Your task to perform on an android device: Do I have any events today? Image 0: 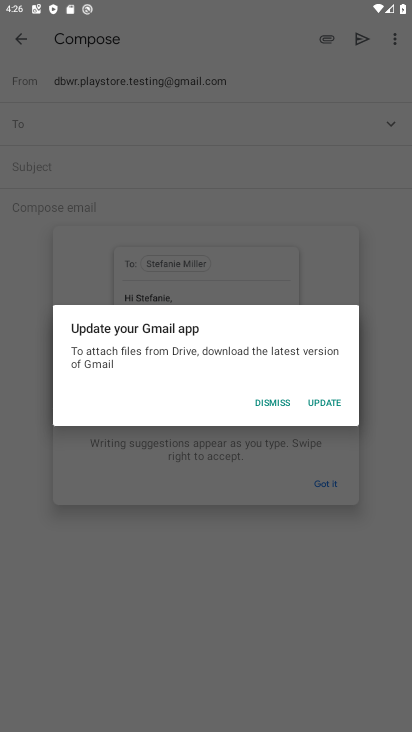
Step 0: press home button
Your task to perform on an android device: Do I have any events today? Image 1: 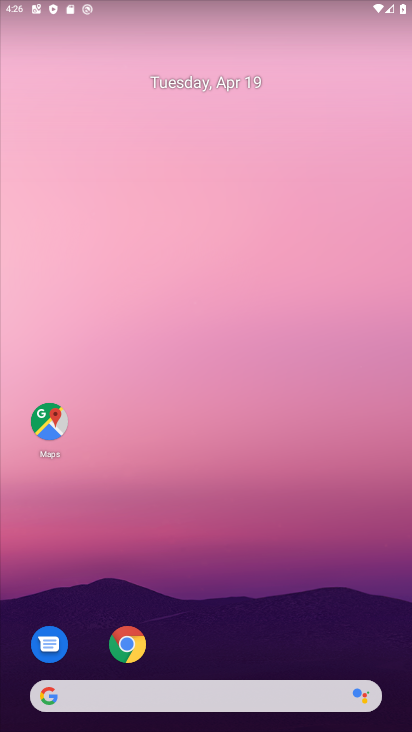
Step 1: drag from (248, 610) to (304, 59)
Your task to perform on an android device: Do I have any events today? Image 2: 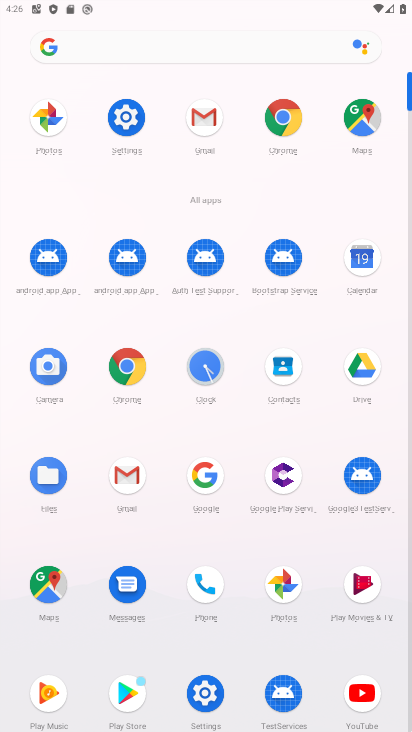
Step 2: click (371, 283)
Your task to perform on an android device: Do I have any events today? Image 3: 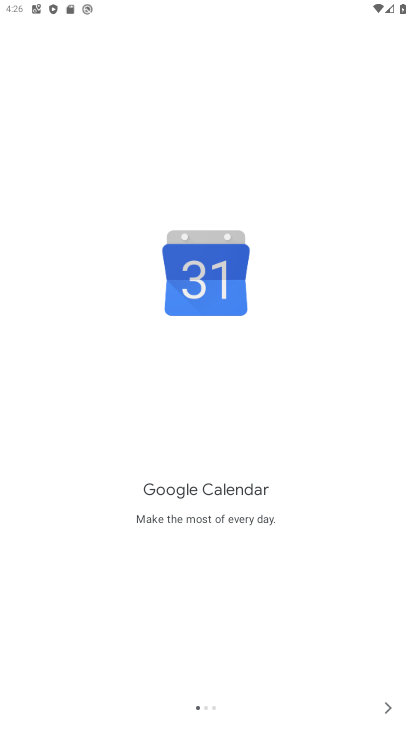
Step 3: click (388, 710)
Your task to perform on an android device: Do I have any events today? Image 4: 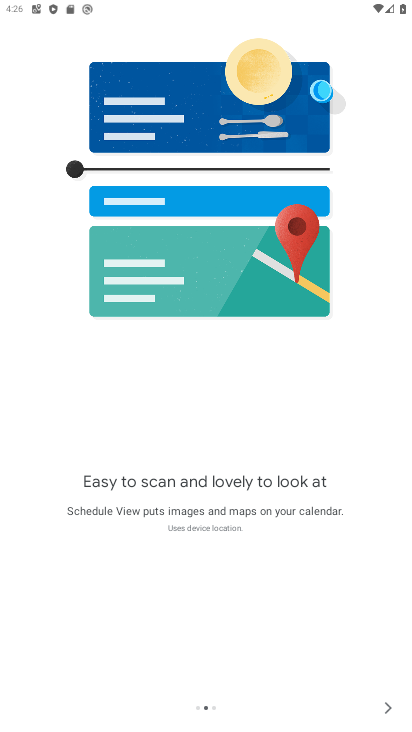
Step 4: click (388, 709)
Your task to perform on an android device: Do I have any events today? Image 5: 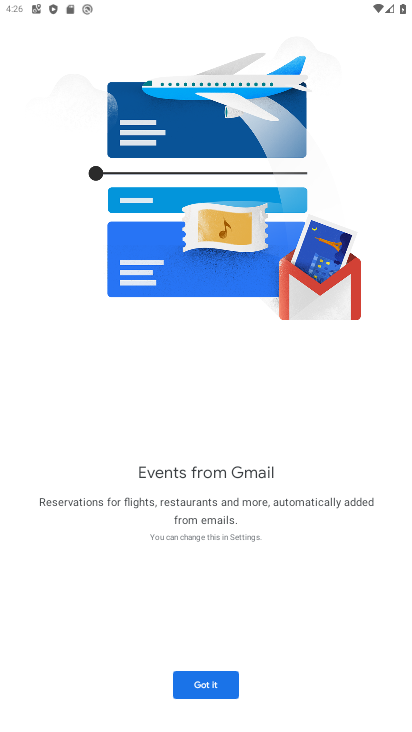
Step 5: click (212, 688)
Your task to perform on an android device: Do I have any events today? Image 6: 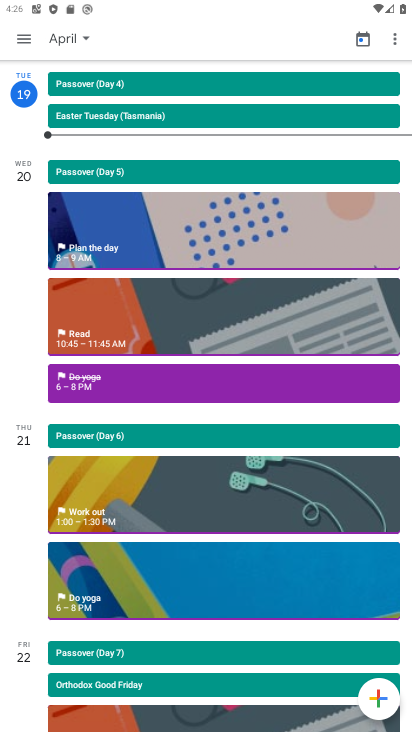
Step 6: click (68, 42)
Your task to perform on an android device: Do I have any events today? Image 7: 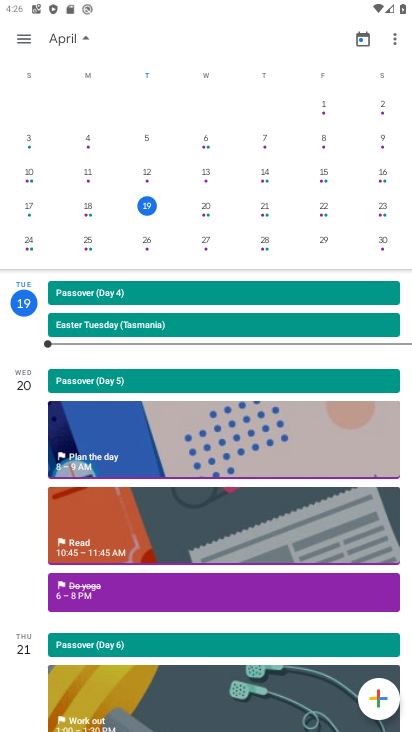
Step 7: task complete